Your task to perform on an android device: toggle wifi Image 0: 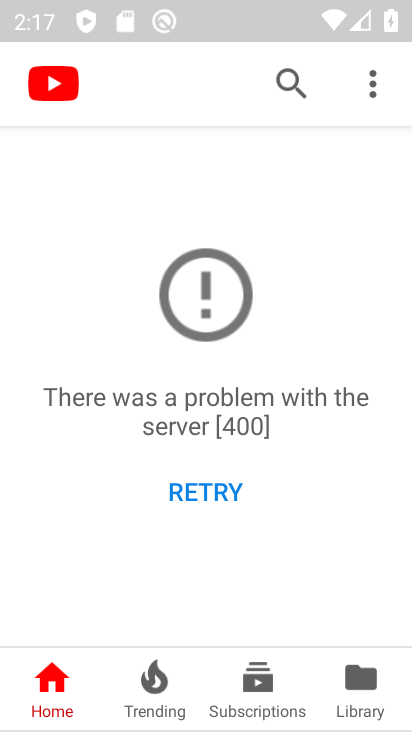
Step 0: press home button
Your task to perform on an android device: toggle wifi Image 1: 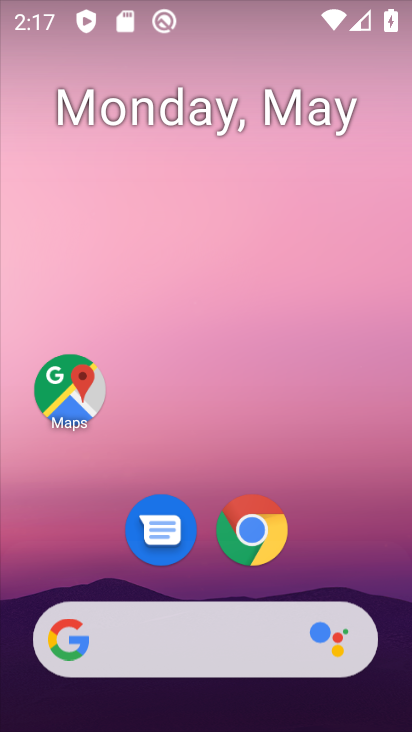
Step 1: drag from (254, 676) to (329, 161)
Your task to perform on an android device: toggle wifi Image 2: 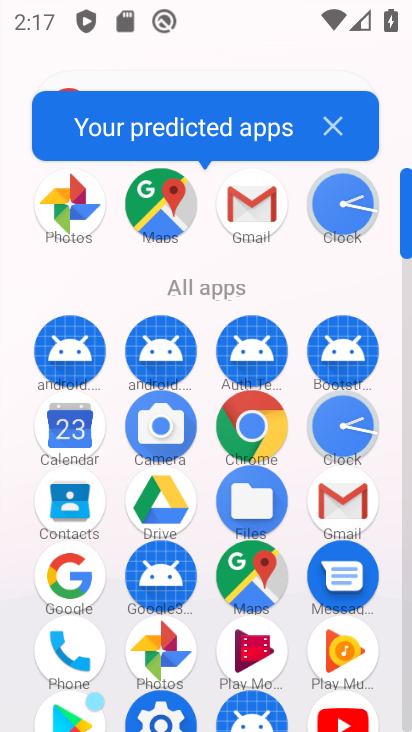
Step 2: click (148, 720)
Your task to perform on an android device: toggle wifi Image 3: 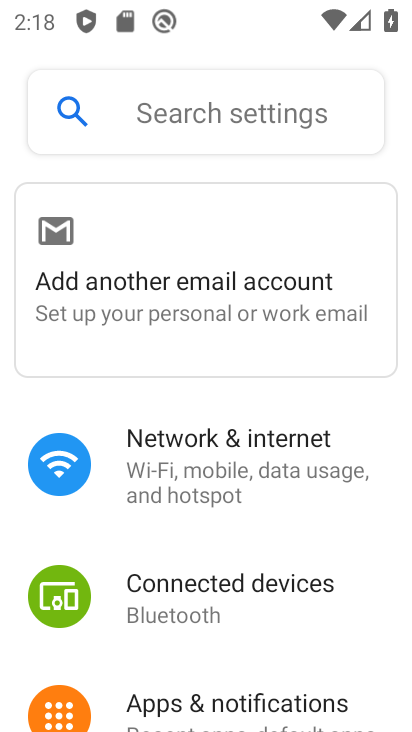
Step 3: click (196, 487)
Your task to perform on an android device: toggle wifi Image 4: 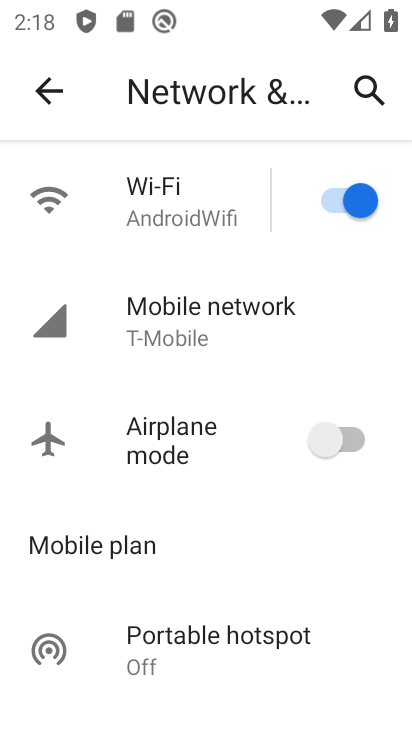
Step 4: task complete